Your task to perform on an android device: Show me recent news Image 0: 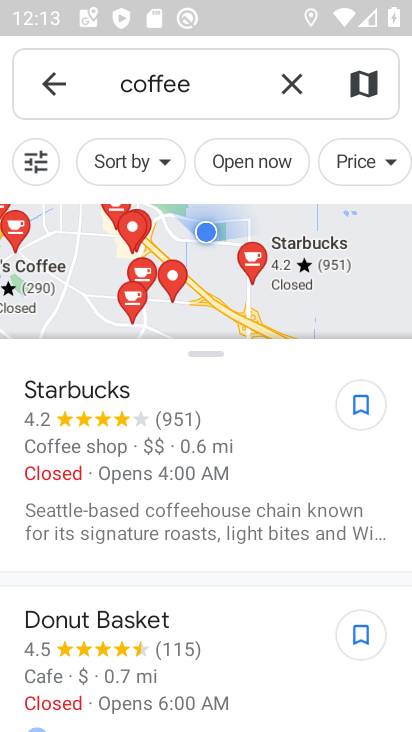
Step 0: press home button
Your task to perform on an android device: Show me recent news Image 1: 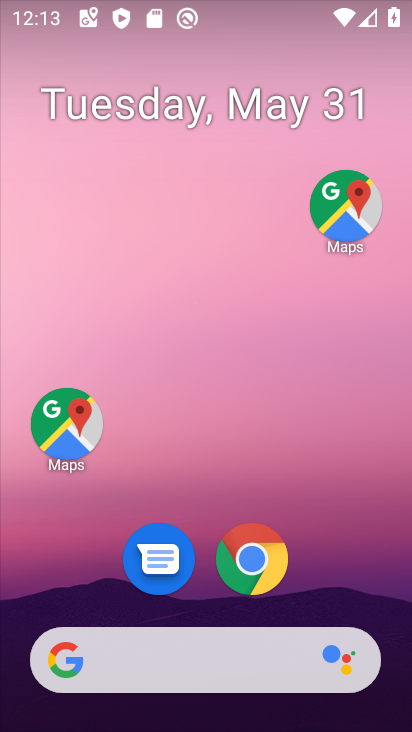
Step 1: click (254, 562)
Your task to perform on an android device: Show me recent news Image 2: 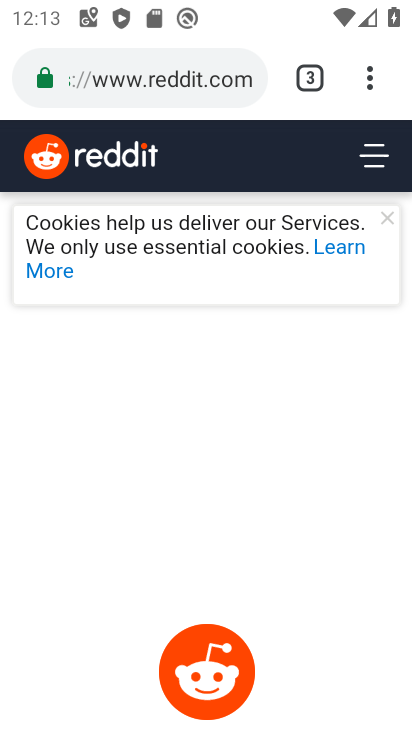
Step 2: click (229, 72)
Your task to perform on an android device: Show me recent news Image 3: 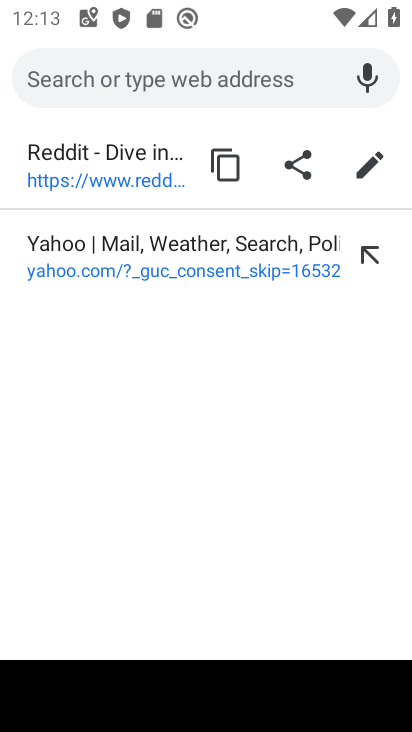
Step 3: type "news"
Your task to perform on an android device: Show me recent news Image 4: 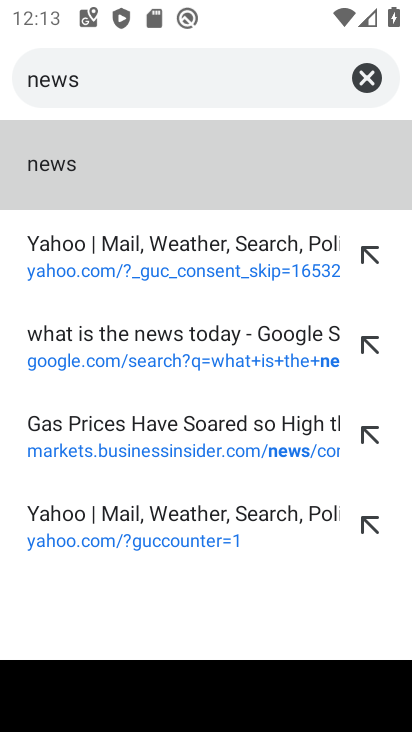
Step 4: click (58, 162)
Your task to perform on an android device: Show me recent news Image 5: 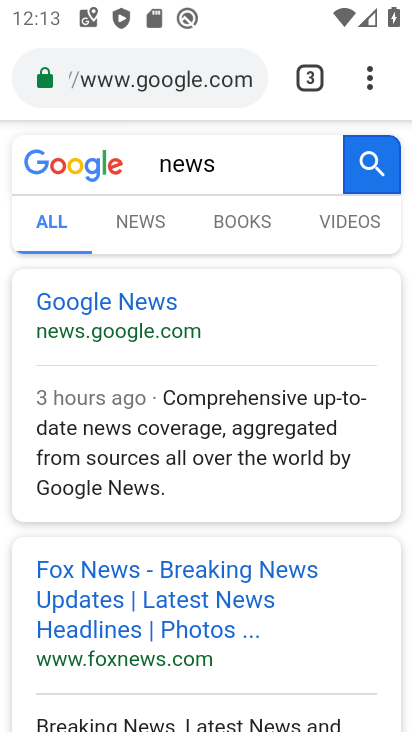
Step 5: click (155, 209)
Your task to perform on an android device: Show me recent news Image 6: 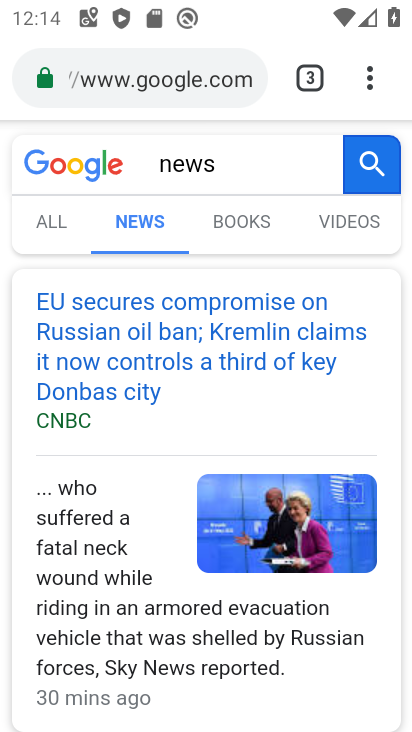
Step 6: task complete